Your task to perform on an android device: open chrome and create a bookmark for the current page Image 0: 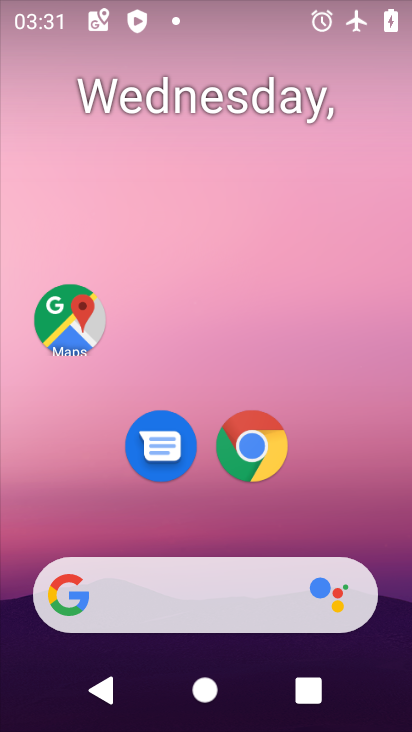
Step 0: click (232, 464)
Your task to perform on an android device: open chrome and create a bookmark for the current page Image 1: 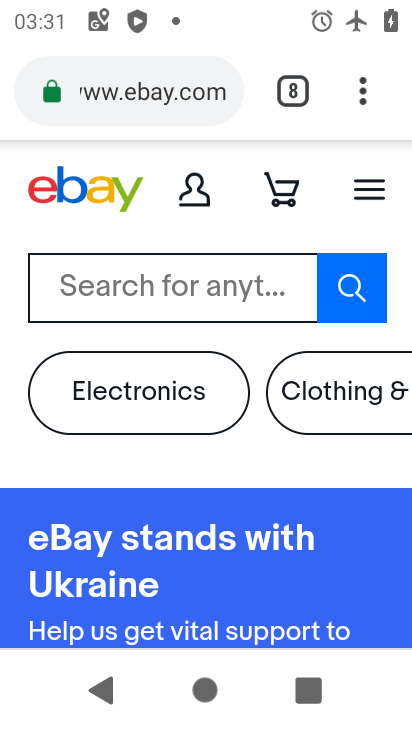
Step 1: click (285, 102)
Your task to perform on an android device: open chrome and create a bookmark for the current page Image 2: 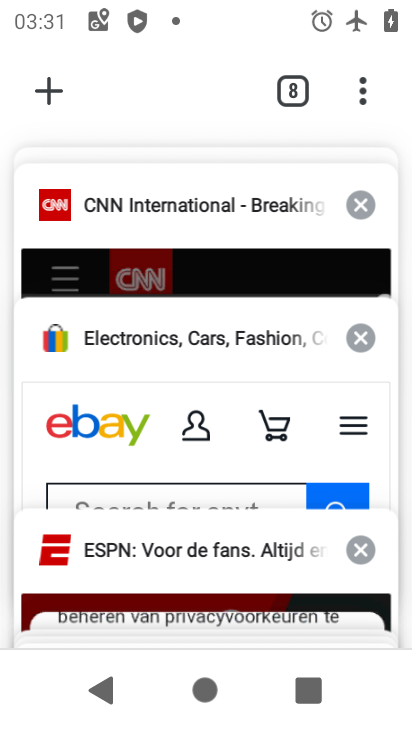
Step 2: click (252, 338)
Your task to perform on an android device: open chrome and create a bookmark for the current page Image 3: 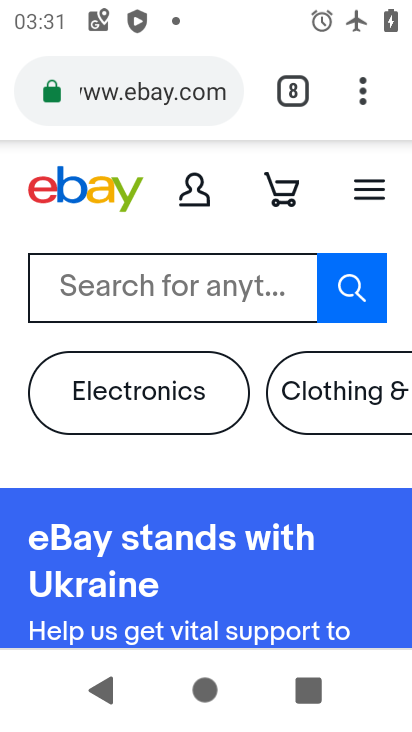
Step 3: click (365, 91)
Your task to perform on an android device: open chrome and create a bookmark for the current page Image 4: 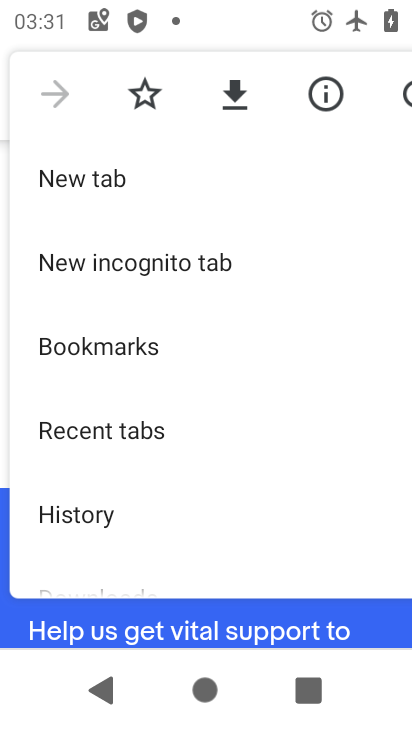
Step 4: click (153, 98)
Your task to perform on an android device: open chrome and create a bookmark for the current page Image 5: 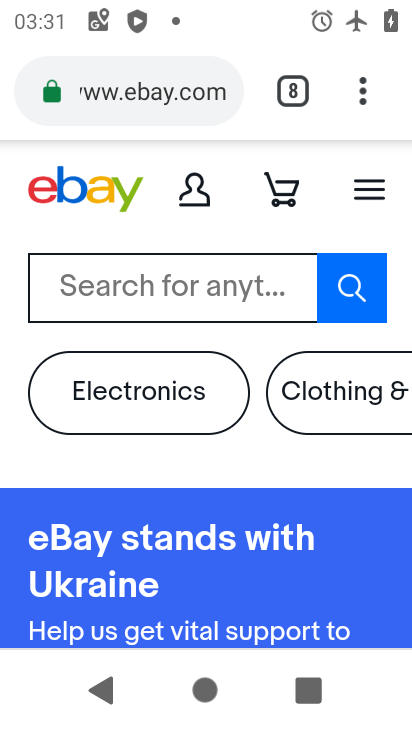
Step 5: task complete